Your task to perform on an android device: Set an alarm for 6pm Image 0: 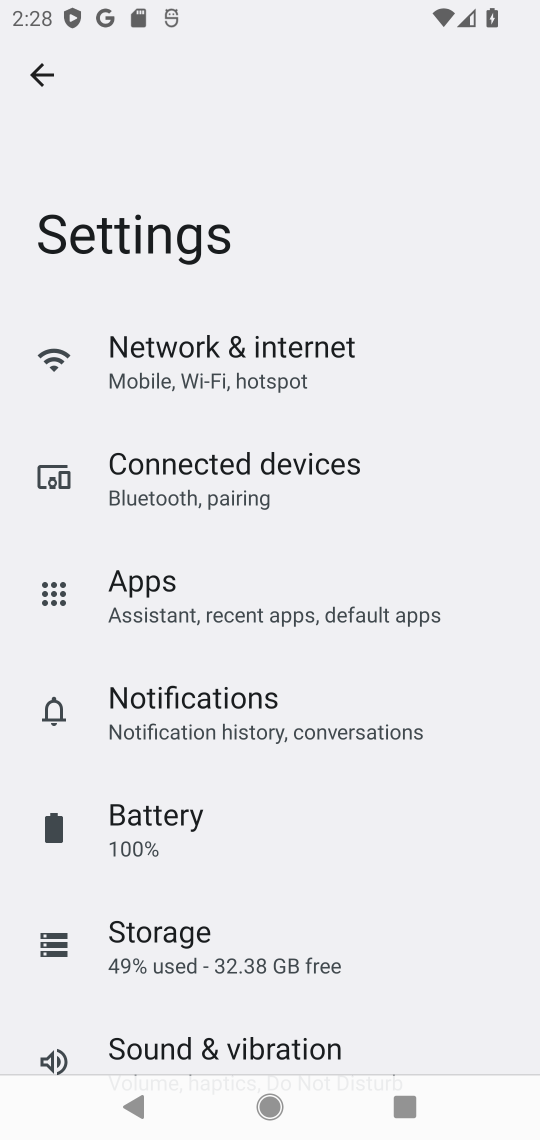
Step 0: press home button
Your task to perform on an android device: Set an alarm for 6pm Image 1: 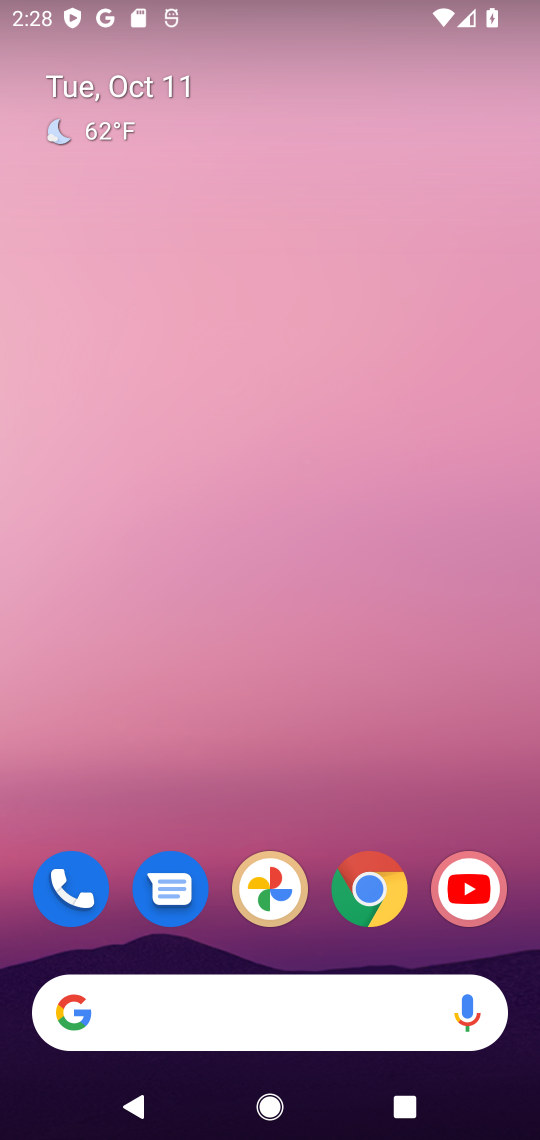
Step 1: drag from (216, 944) to (327, 307)
Your task to perform on an android device: Set an alarm for 6pm Image 2: 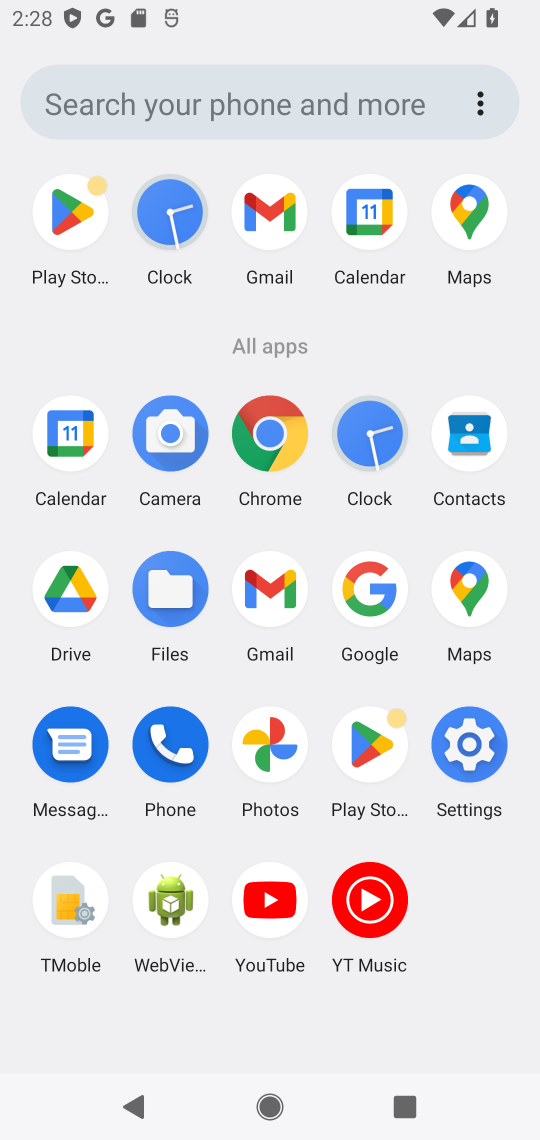
Step 2: click (373, 434)
Your task to perform on an android device: Set an alarm for 6pm Image 3: 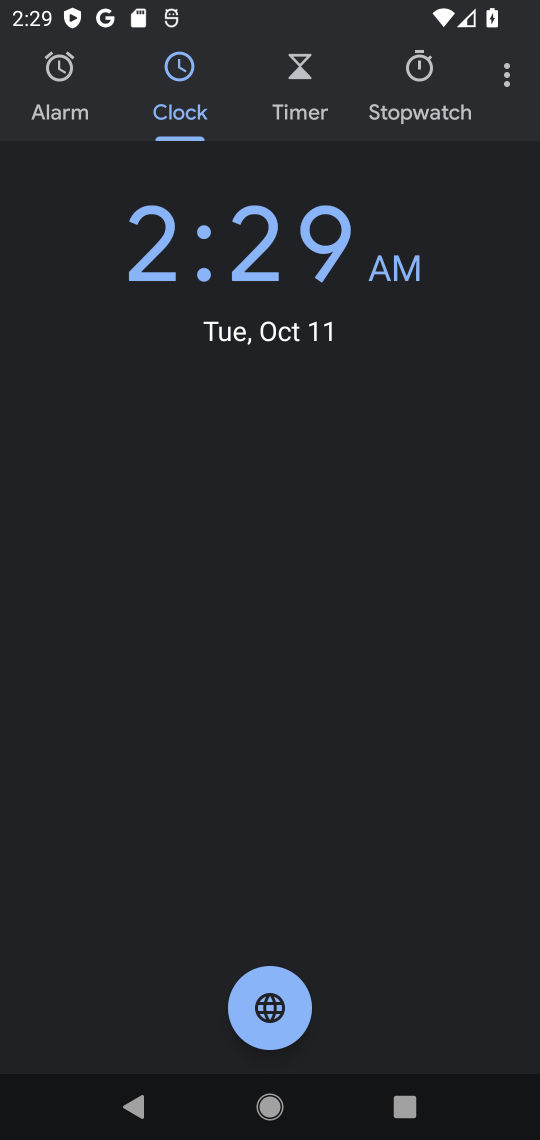
Step 3: click (58, 90)
Your task to perform on an android device: Set an alarm for 6pm Image 4: 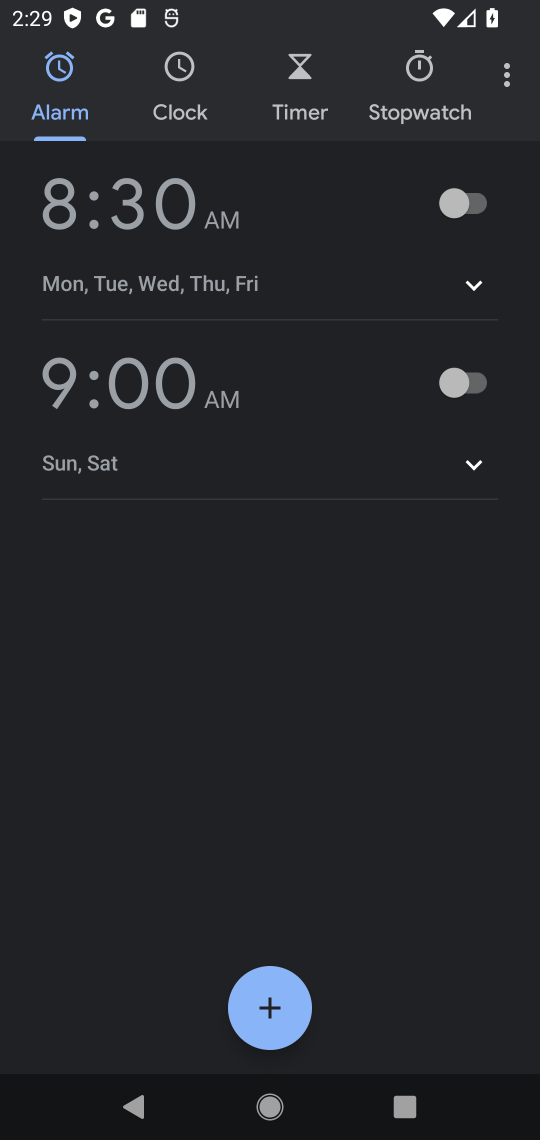
Step 4: click (287, 993)
Your task to perform on an android device: Set an alarm for 6pm Image 5: 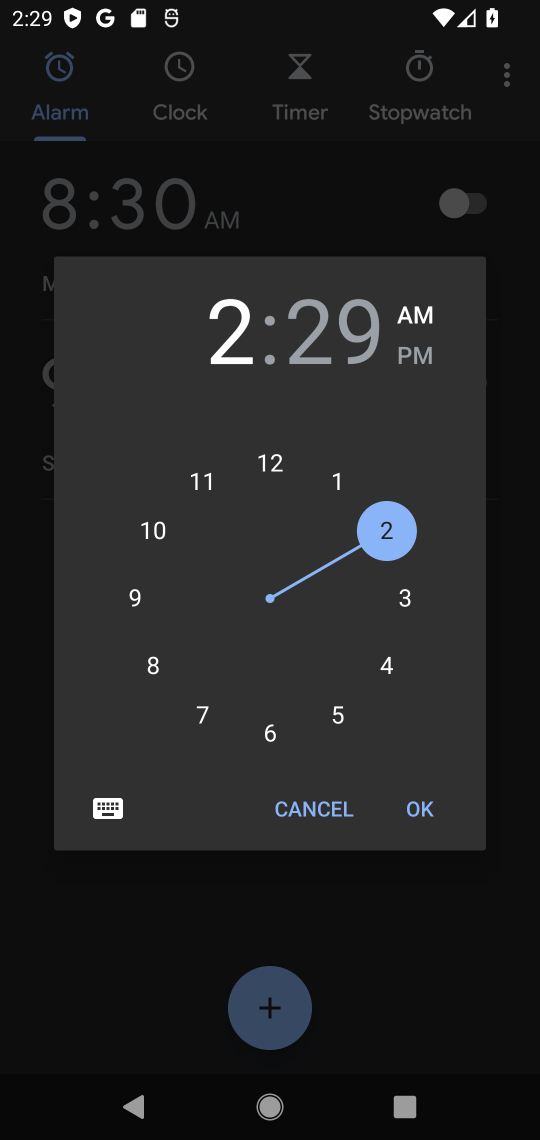
Step 5: click (263, 724)
Your task to perform on an android device: Set an alarm for 6pm Image 6: 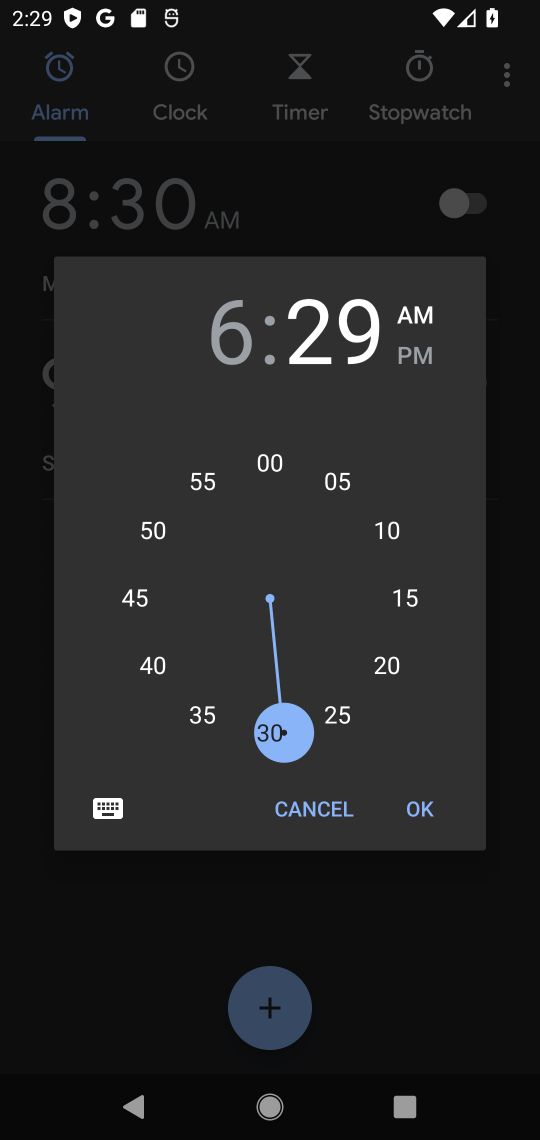
Step 6: click (262, 468)
Your task to perform on an android device: Set an alarm for 6pm Image 7: 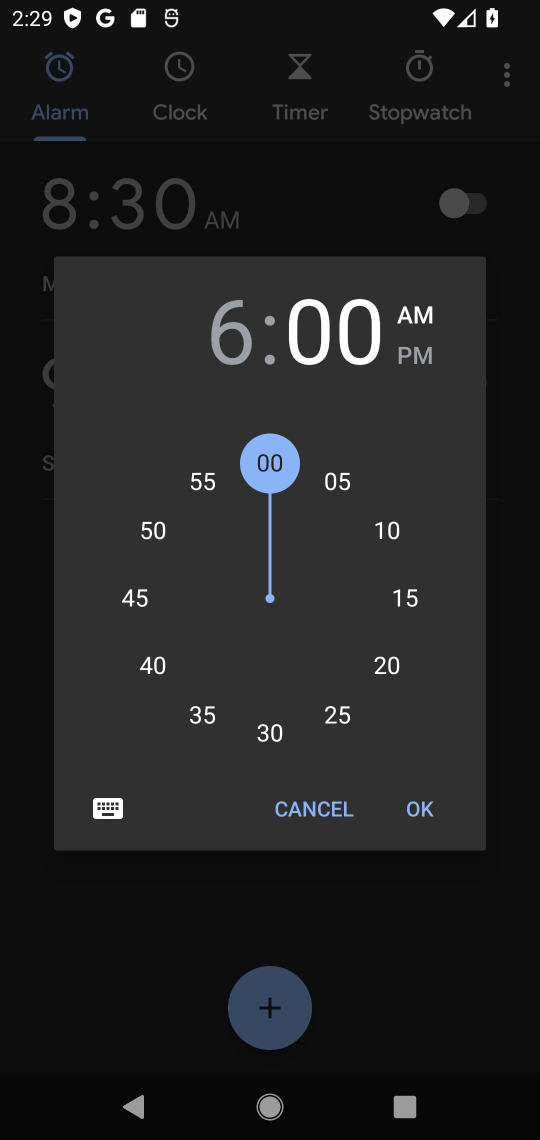
Step 7: click (414, 812)
Your task to perform on an android device: Set an alarm for 6pm Image 8: 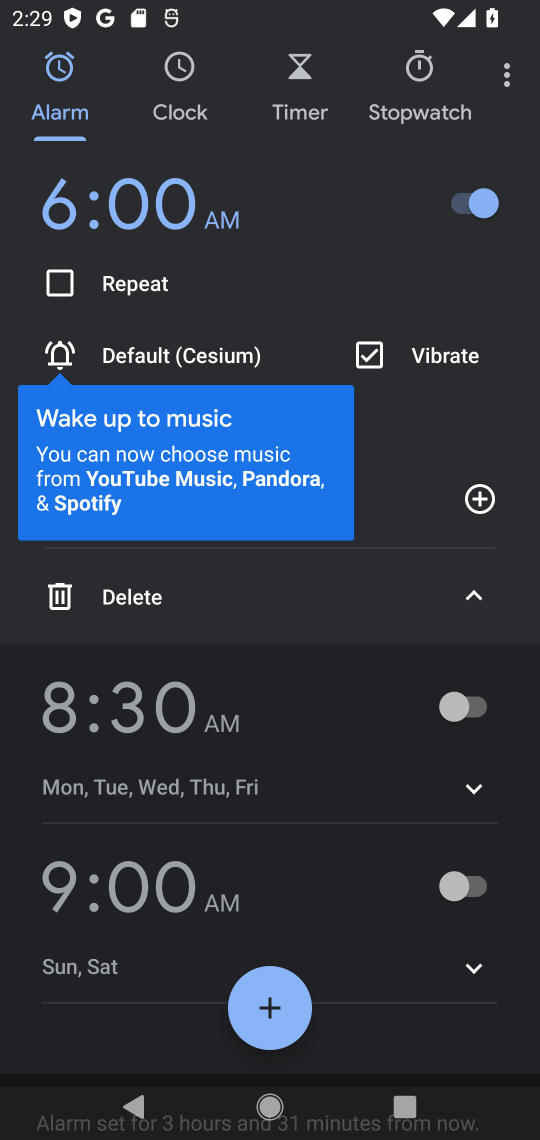
Step 8: click (353, 226)
Your task to perform on an android device: Set an alarm for 6pm Image 9: 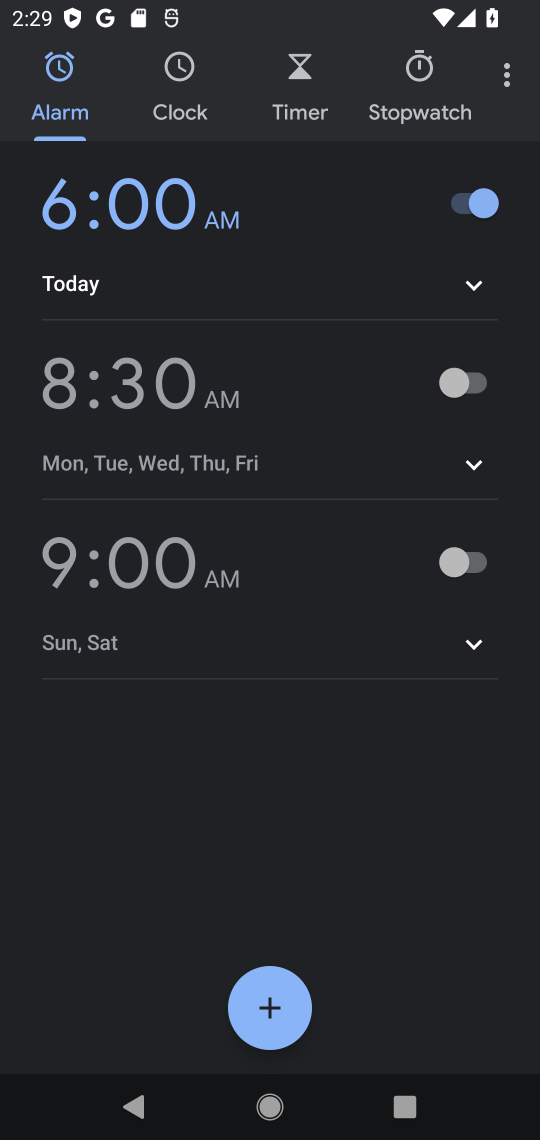
Step 9: click (350, 241)
Your task to perform on an android device: Set an alarm for 6pm Image 10: 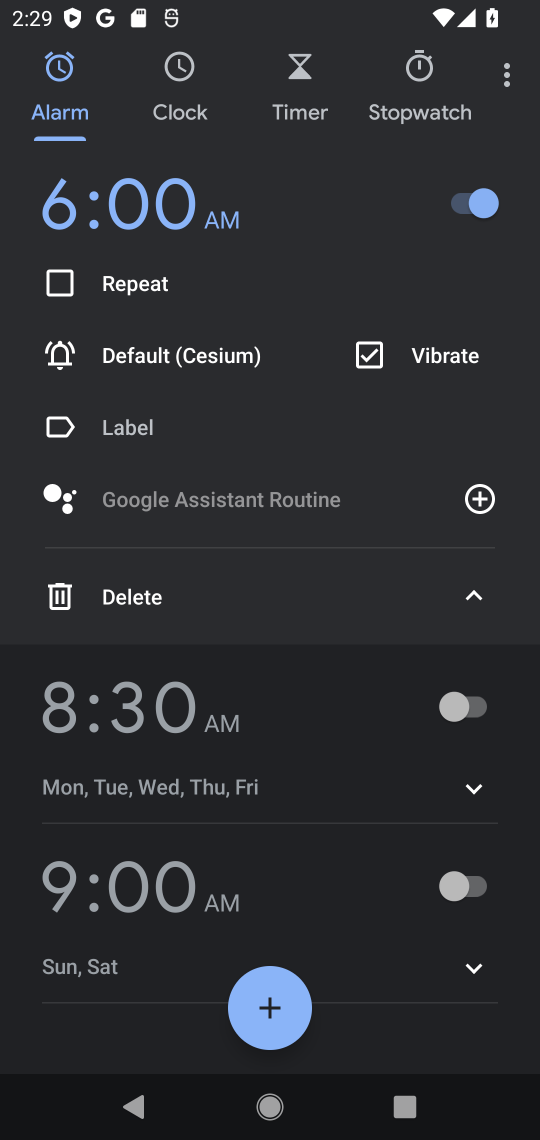
Step 10: click (106, 587)
Your task to perform on an android device: Set an alarm for 6pm Image 11: 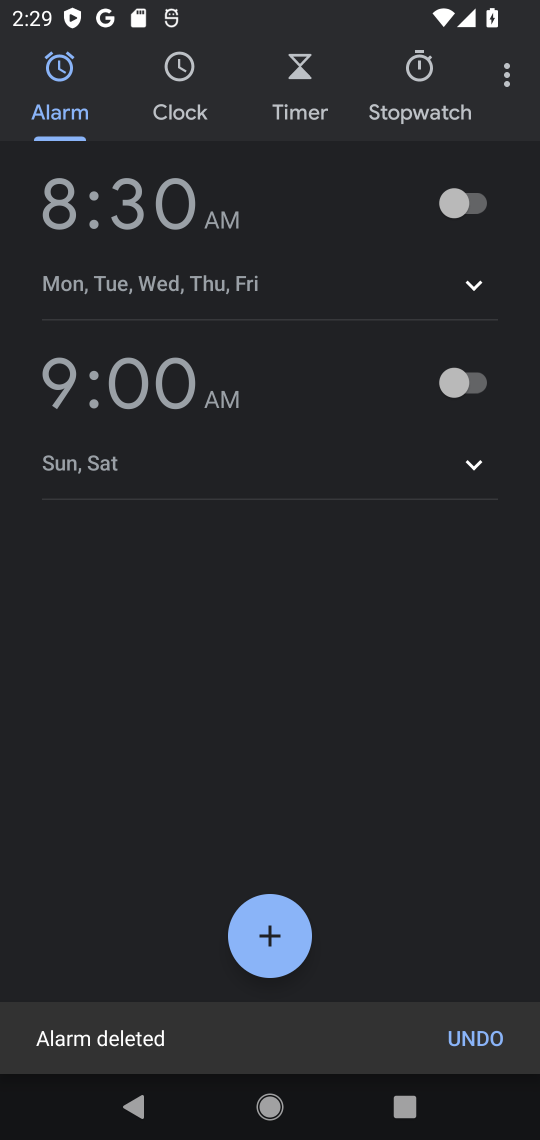
Step 11: click (284, 918)
Your task to perform on an android device: Set an alarm for 6pm Image 12: 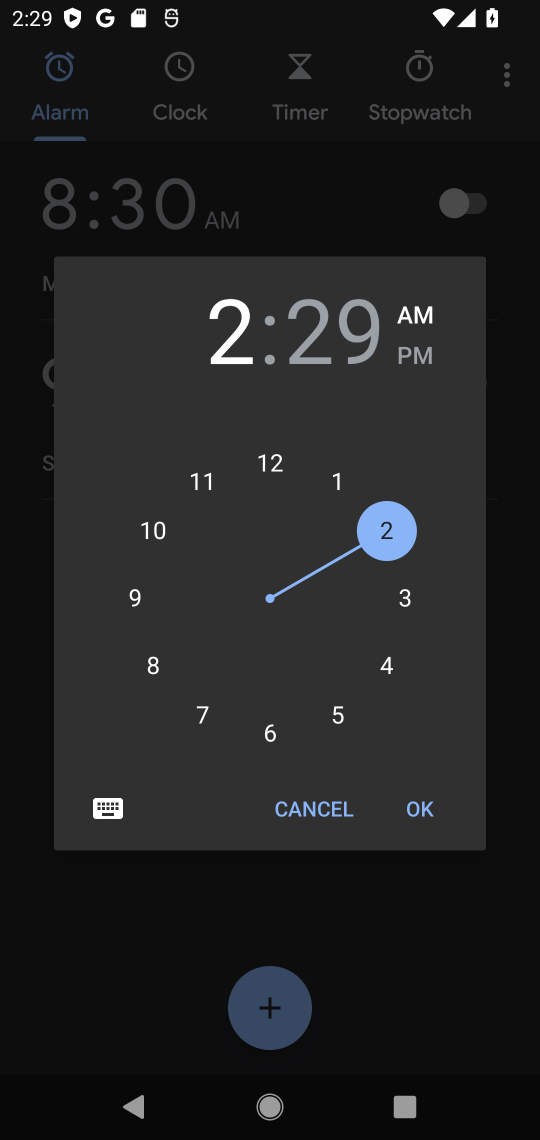
Step 12: click (279, 740)
Your task to perform on an android device: Set an alarm for 6pm Image 13: 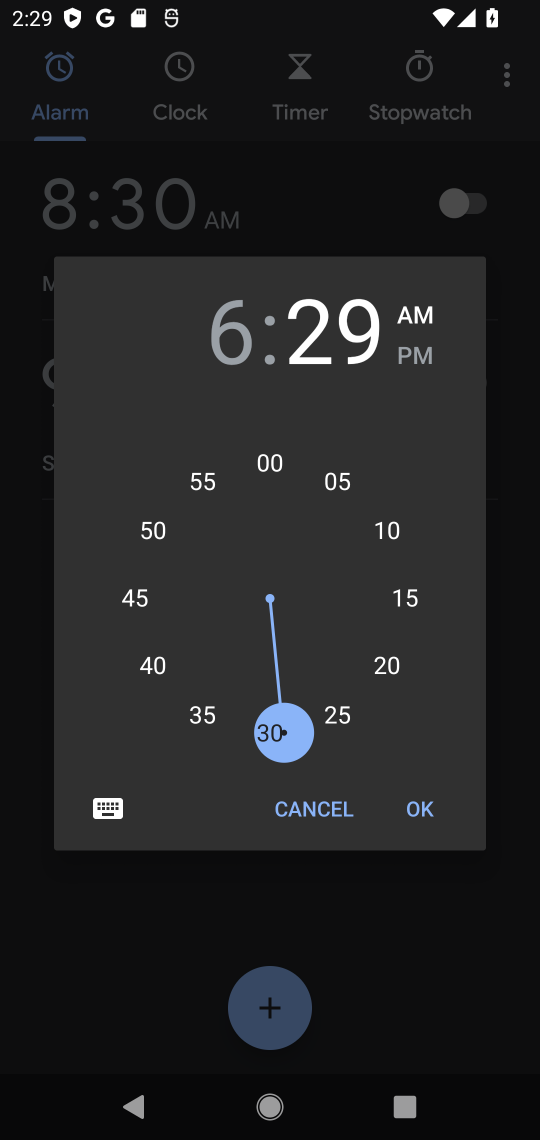
Step 13: click (265, 459)
Your task to perform on an android device: Set an alarm for 6pm Image 14: 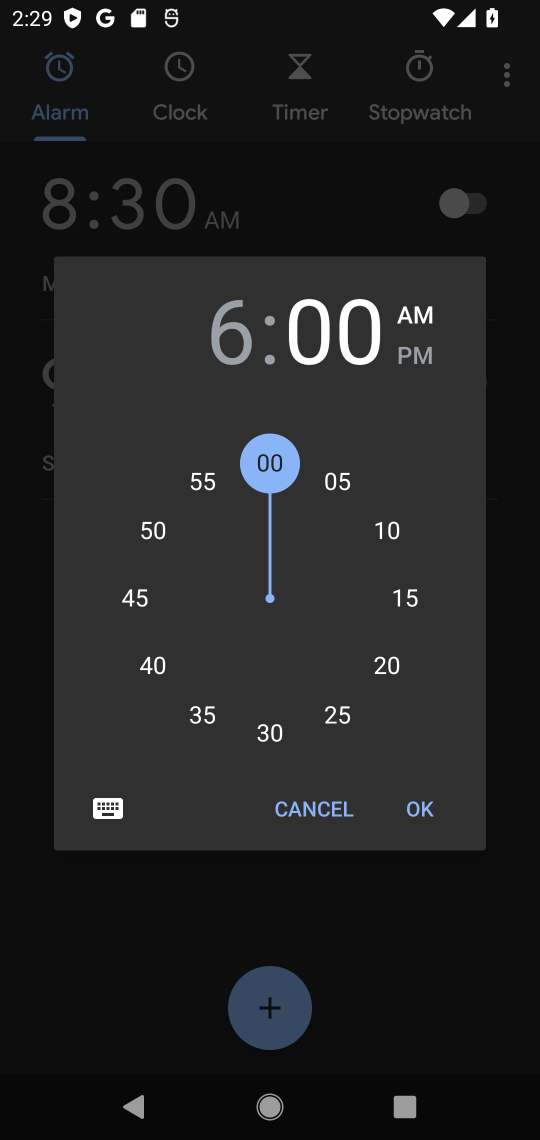
Step 14: click (434, 357)
Your task to perform on an android device: Set an alarm for 6pm Image 15: 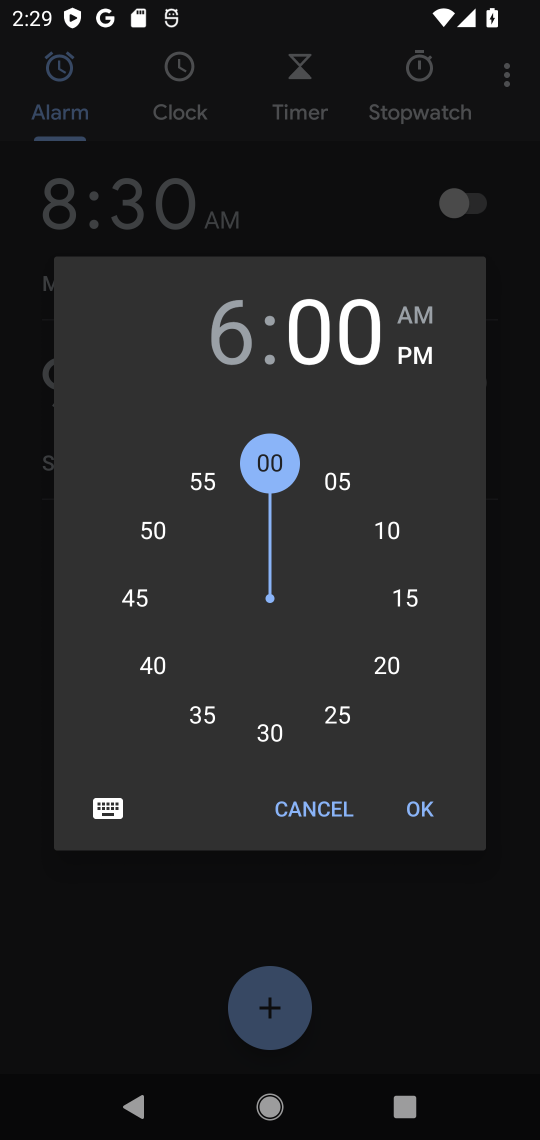
Step 15: click (425, 830)
Your task to perform on an android device: Set an alarm for 6pm Image 16: 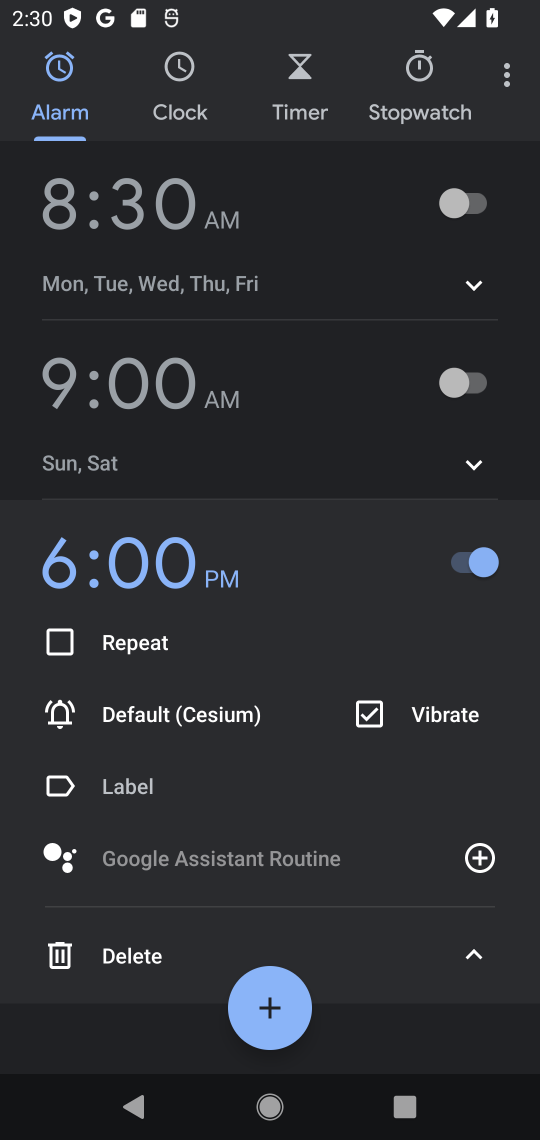
Step 16: click (454, 622)
Your task to perform on an android device: Set an alarm for 6pm Image 17: 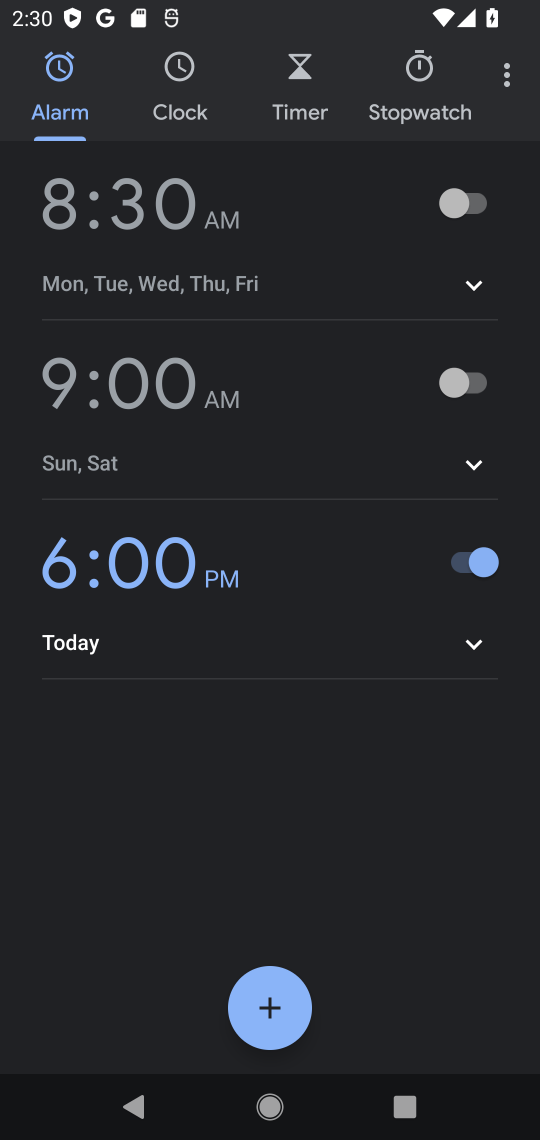
Step 17: task complete